Your task to perform on an android device: Add "jbl charge 4" to the cart on bestbuy.com Image 0: 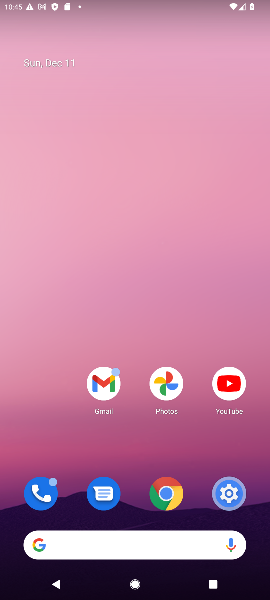
Step 0: click (163, 547)
Your task to perform on an android device: Add "jbl charge 4" to the cart on bestbuy.com Image 1: 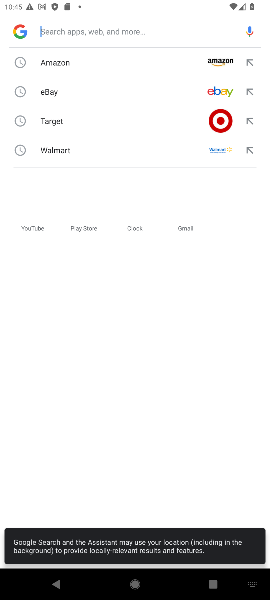
Step 1: type "bestbuy"
Your task to perform on an android device: Add "jbl charge 4" to the cart on bestbuy.com Image 2: 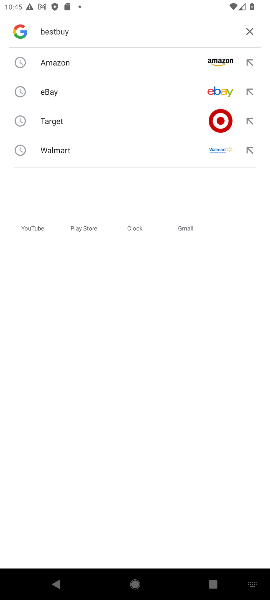
Step 2: click (184, 35)
Your task to perform on an android device: Add "jbl charge 4" to the cart on bestbuy.com Image 3: 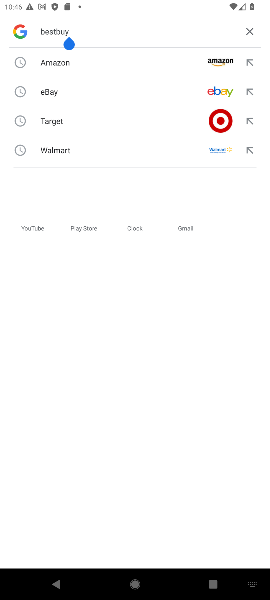
Step 3: task complete